Your task to perform on an android device: check battery use Image 0: 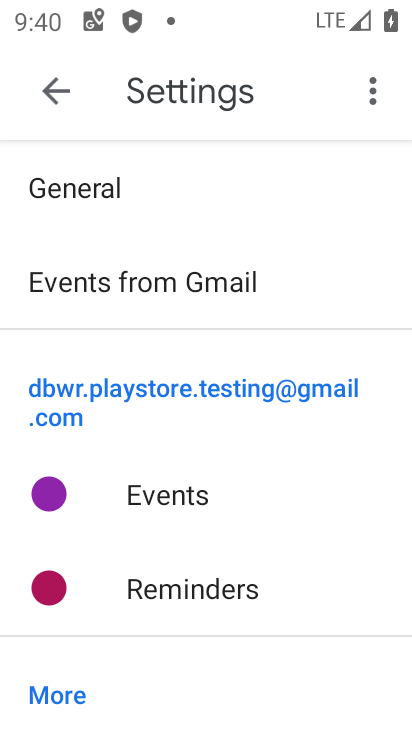
Step 0: press home button
Your task to perform on an android device: check battery use Image 1: 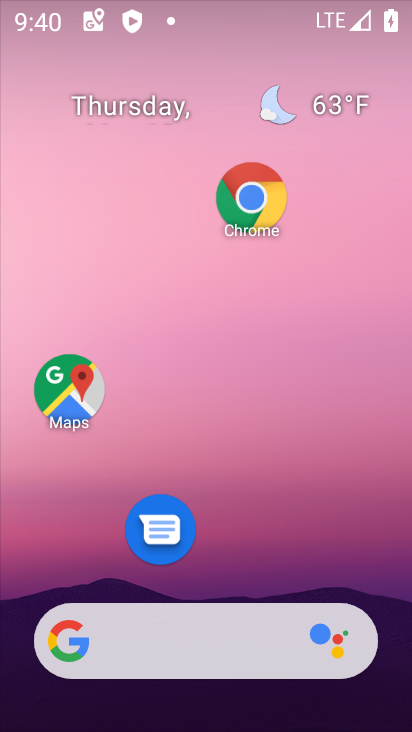
Step 1: drag from (226, 646) to (286, 170)
Your task to perform on an android device: check battery use Image 2: 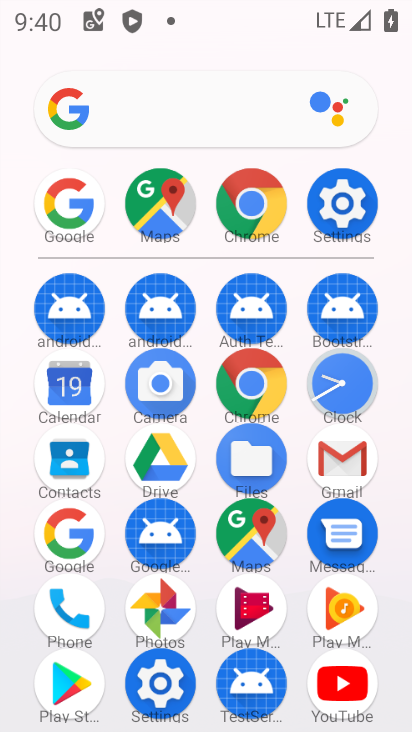
Step 2: click (354, 231)
Your task to perform on an android device: check battery use Image 3: 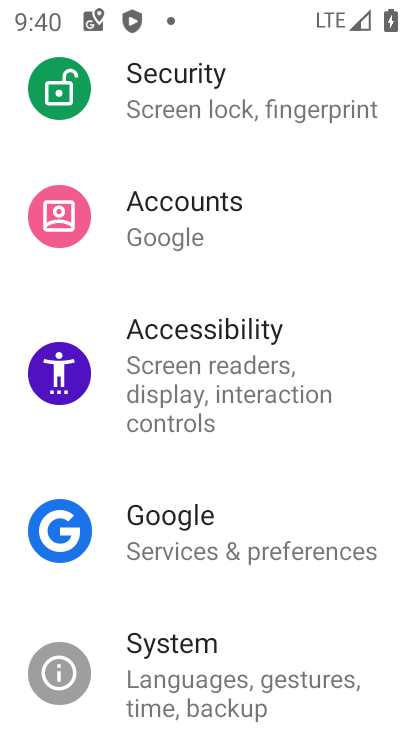
Step 3: drag from (277, 344) to (238, 625)
Your task to perform on an android device: check battery use Image 4: 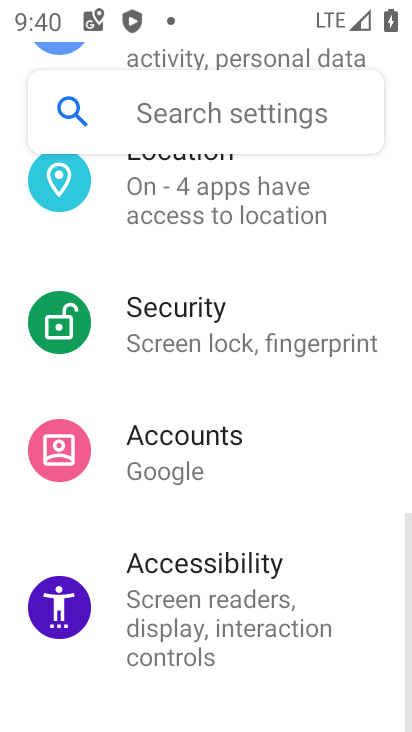
Step 4: drag from (217, 420) to (184, 694)
Your task to perform on an android device: check battery use Image 5: 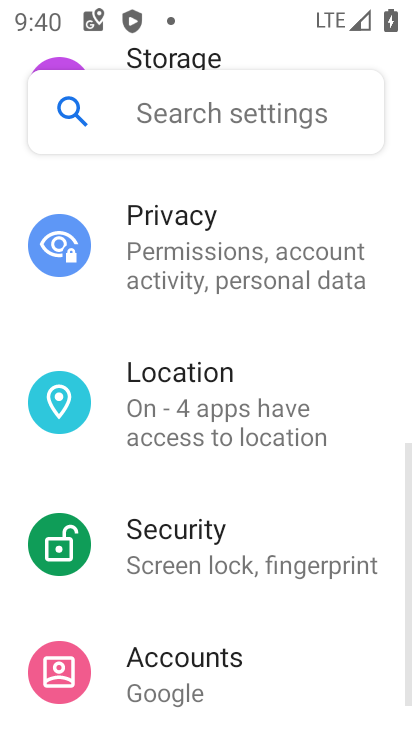
Step 5: drag from (211, 509) to (203, 678)
Your task to perform on an android device: check battery use Image 6: 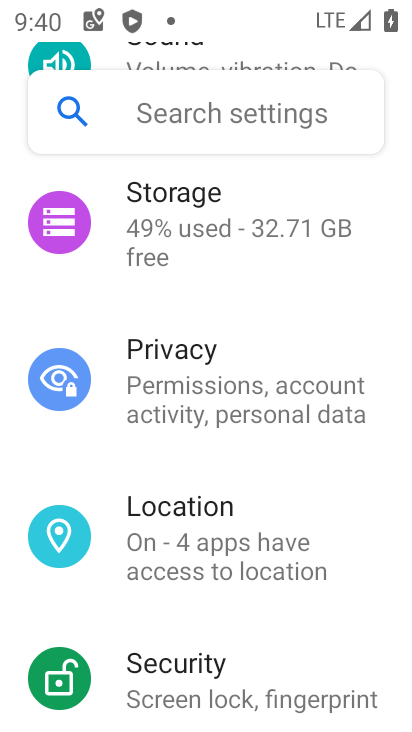
Step 6: drag from (204, 439) to (187, 722)
Your task to perform on an android device: check battery use Image 7: 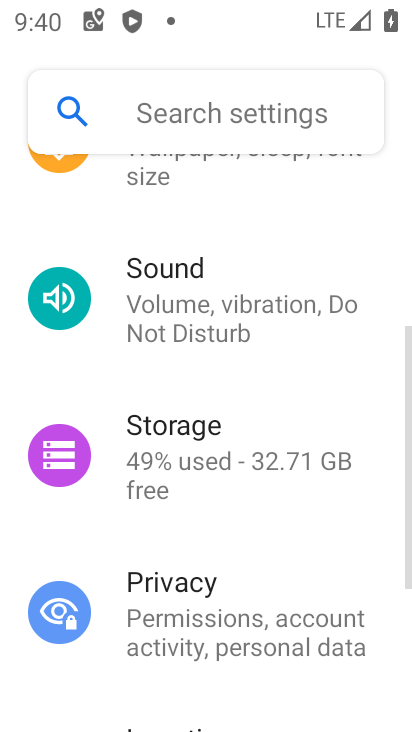
Step 7: drag from (201, 424) to (169, 699)
Your task to perform on an android device: check battery use Image 8: 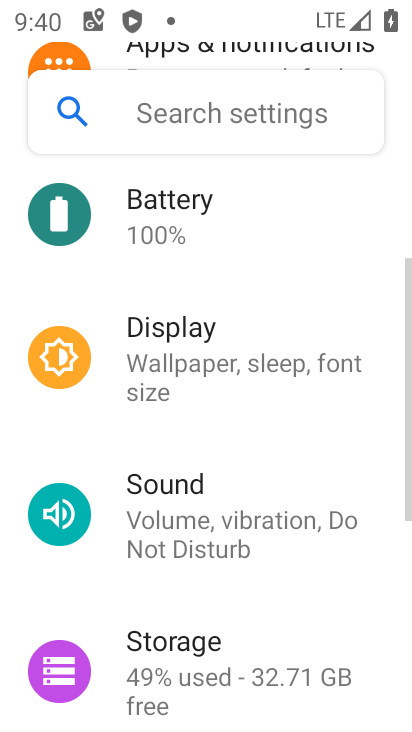
Step 8: drag from (204, 389) to (190, 657)
Your task to perform on an android device: check battery use Image 9: 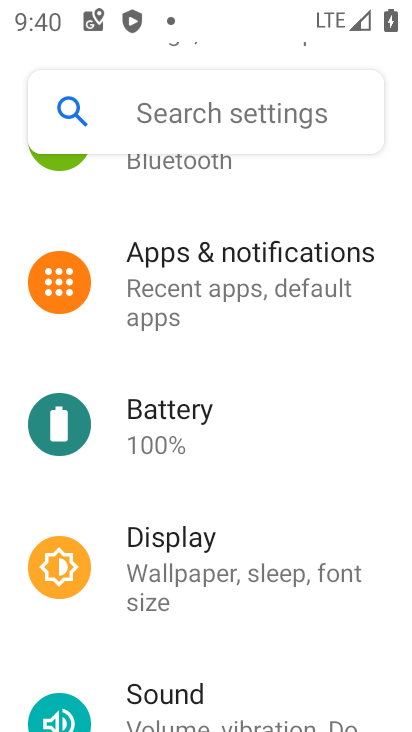
Step 9: click (225, 432)
Your task to perform on an android device: check battery use Image 10: 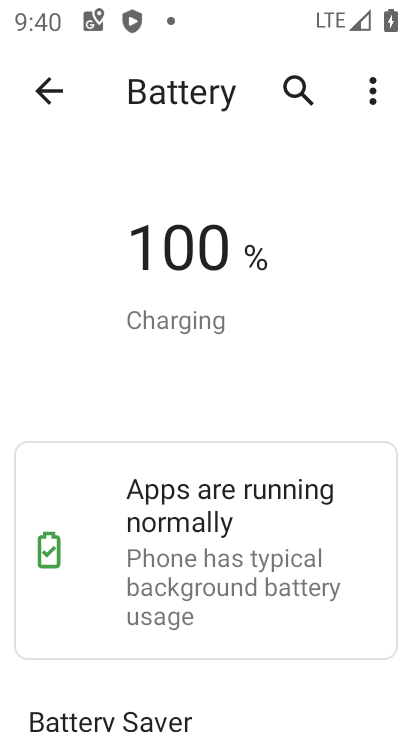
Step 10: task complete